Your task to perform on an android device: Open Amazon Image 0: 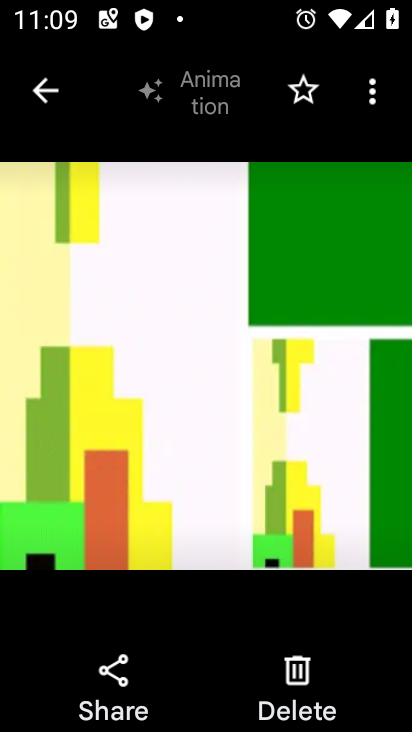
Step 0: press home button
Your task to perform on an android device: Open Amazon Image 1: 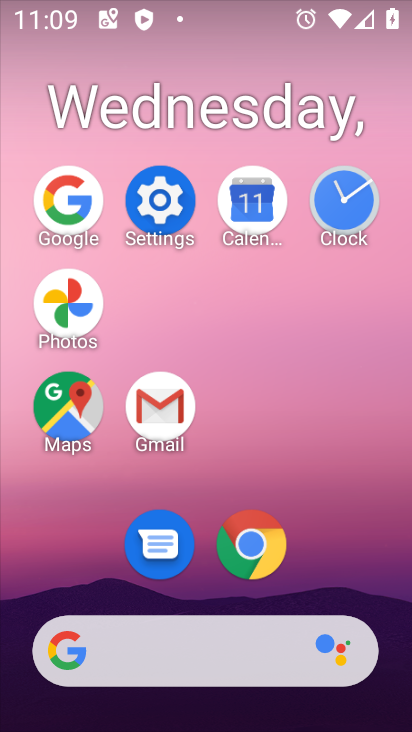
Step 1: click (240, 547)
Your task to perform on an android device: Open Amazon Image 2: 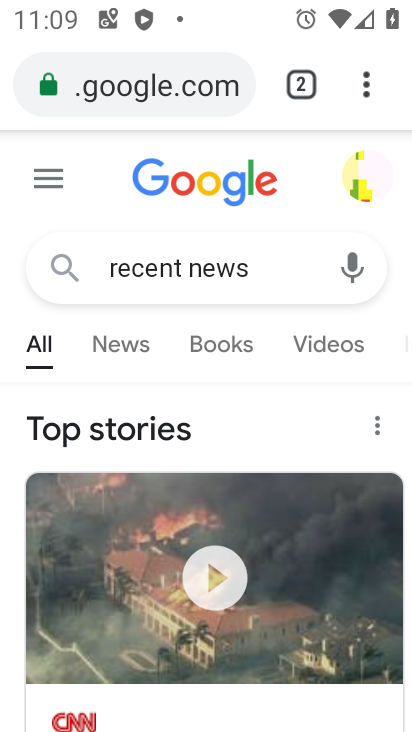
Step 2: click (292, 90)
Your task to perform on an android device: Open Amazon Image 3: 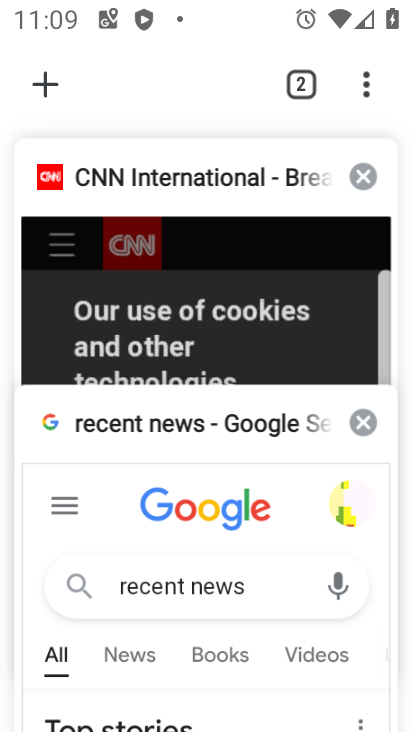
Step 3: click (29, 90)
Your task to perform on an android device: Open Amazon Image 4: 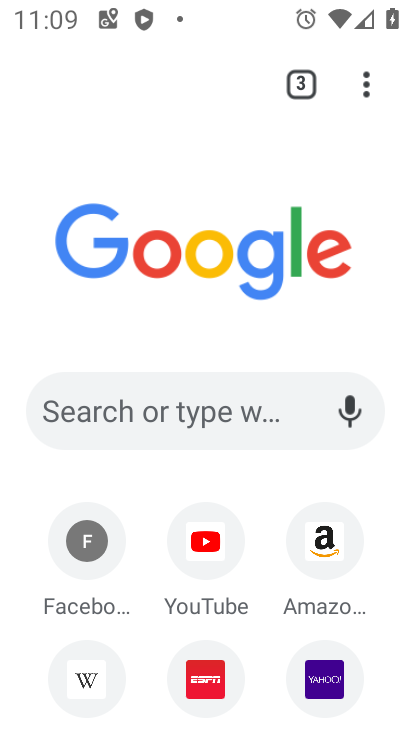
Step 4: click (327, 549)
Your task to perform on an android device: Open Amazon Image 5: 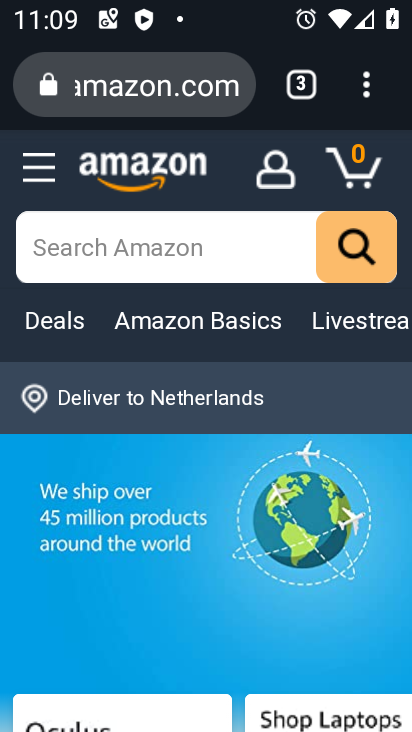
Step 5: task complete